Your task to perform on an android device: see tabs open on other devices in the chrome app Image 0: 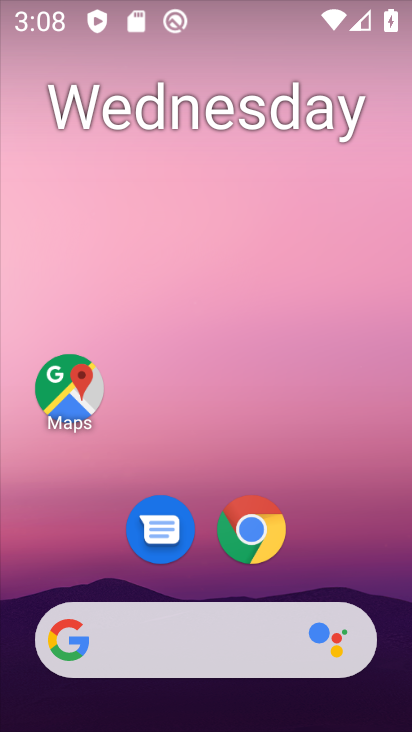
Step 0: drag from (252, 607) to (259, 84)
Your task to perform on an android device: see tabs open on other devices in the chrome app Image 1: 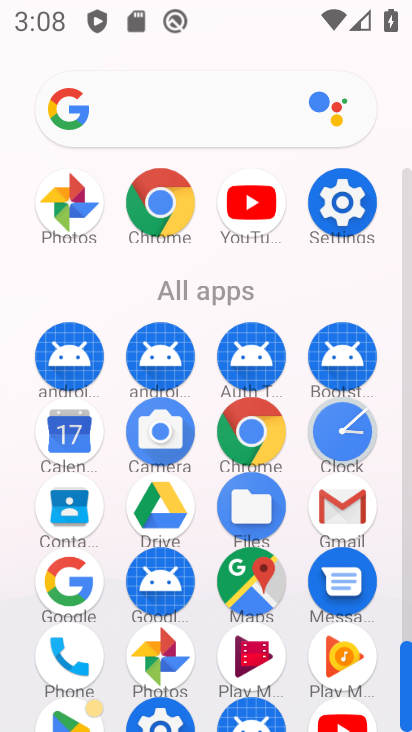
Step 1: click (147, 219)
Your task to perform on an android device: see tabs open on other devices in the chrome app Image 2: 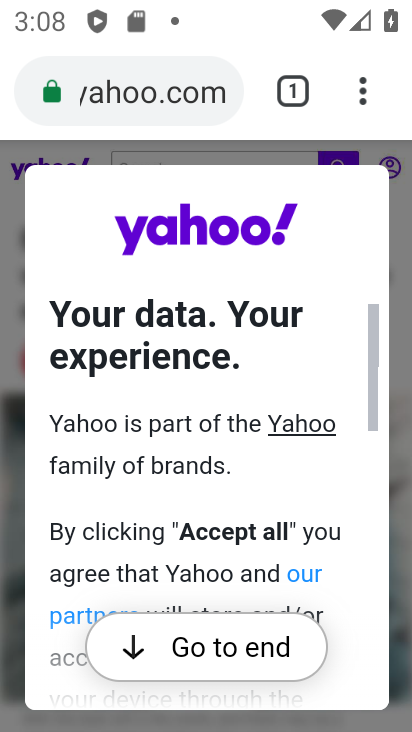
Step 2: task complete